Your task to perform on an android device: change the clock display to digital Image 0: 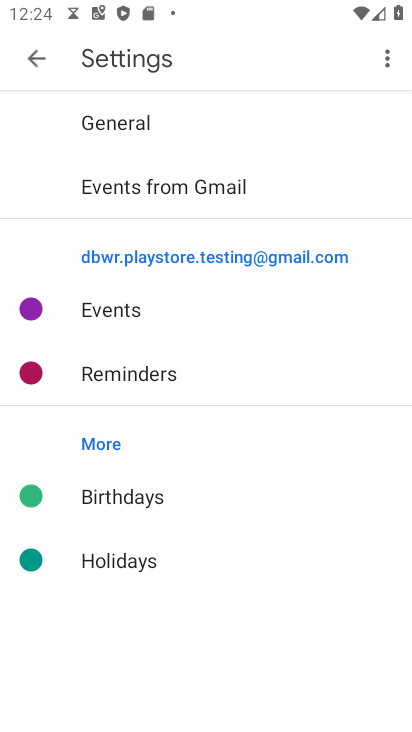
Step 0: press back button
Your task to perform on an android device: change the clock display to digital Image 1: 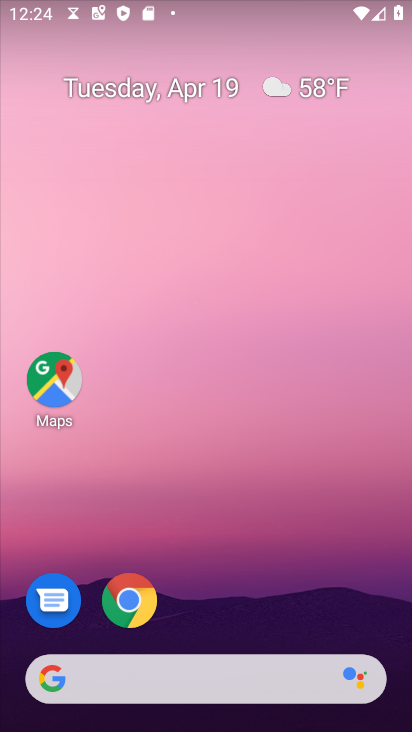
Step 1: drag from (228, 664) to (202, 46)
Your task to perform on an android device: change the clock display to digital Image 2: 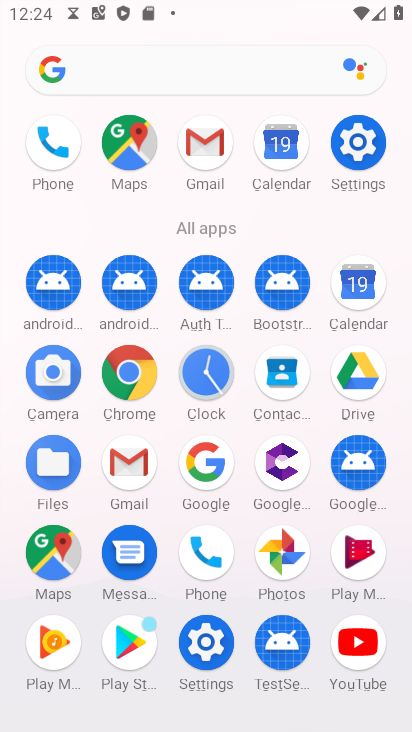
Step 2: click (219, 379)
Your task to perform on an android device: change the clock display to digital Image 3: 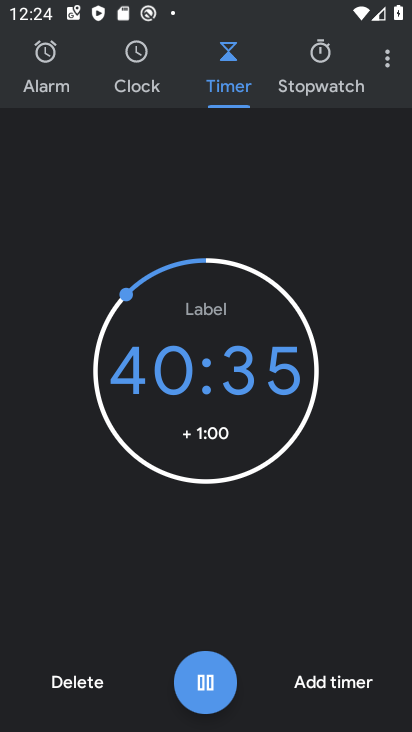
Step 3: click (390, 73)
Your task to perform on an android device: change the clock display to digital Image 4: 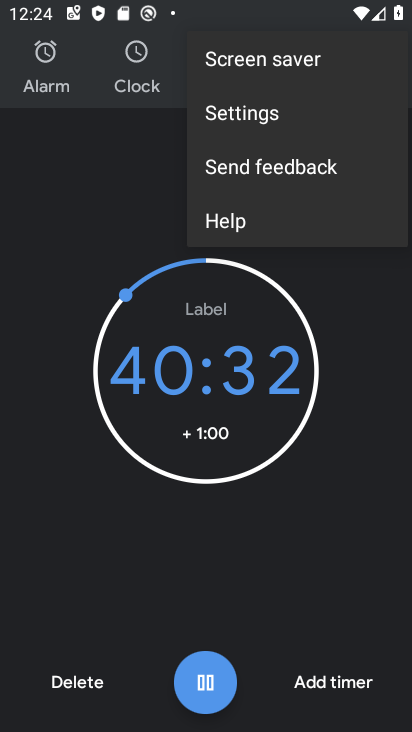
Step 4: click (270, 118)
Your task to perform on an android device: change the clock display to digital Image 5: 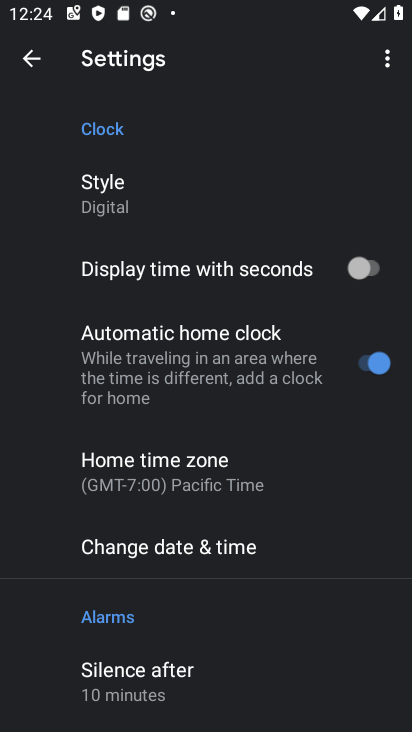
Step 5: click (144, 197)
Your task to perform on an android device: change the clock display to digital Image 6: 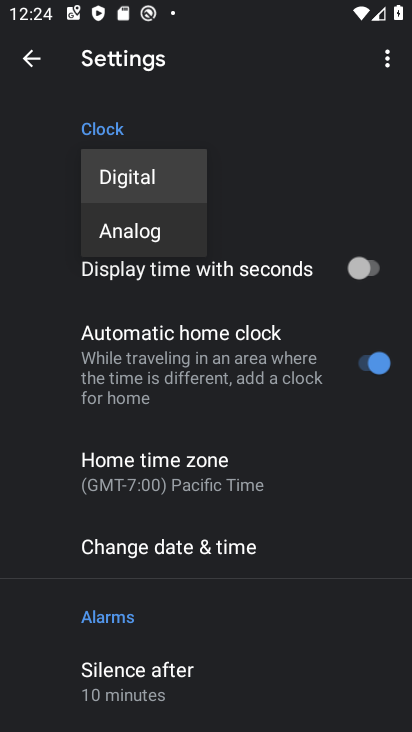
Step 6: click (135, 189)
Your task to perform on an android device: change the clock display to digital Image 7: 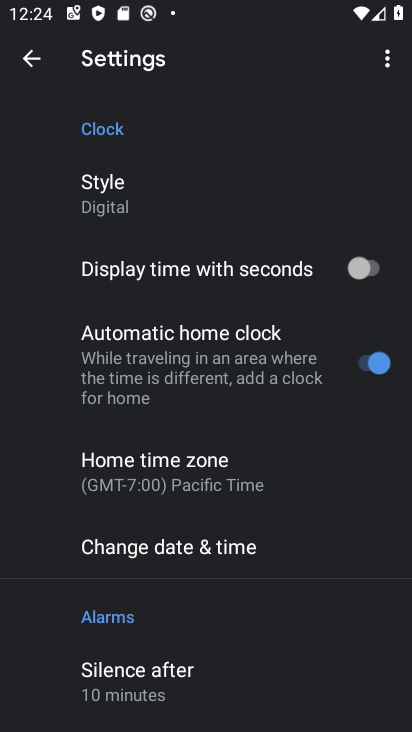
Step 7: task complete